Your task to perform on an android device: What's US dollar exchange rateagainst the Mexican Peso? Image 0: 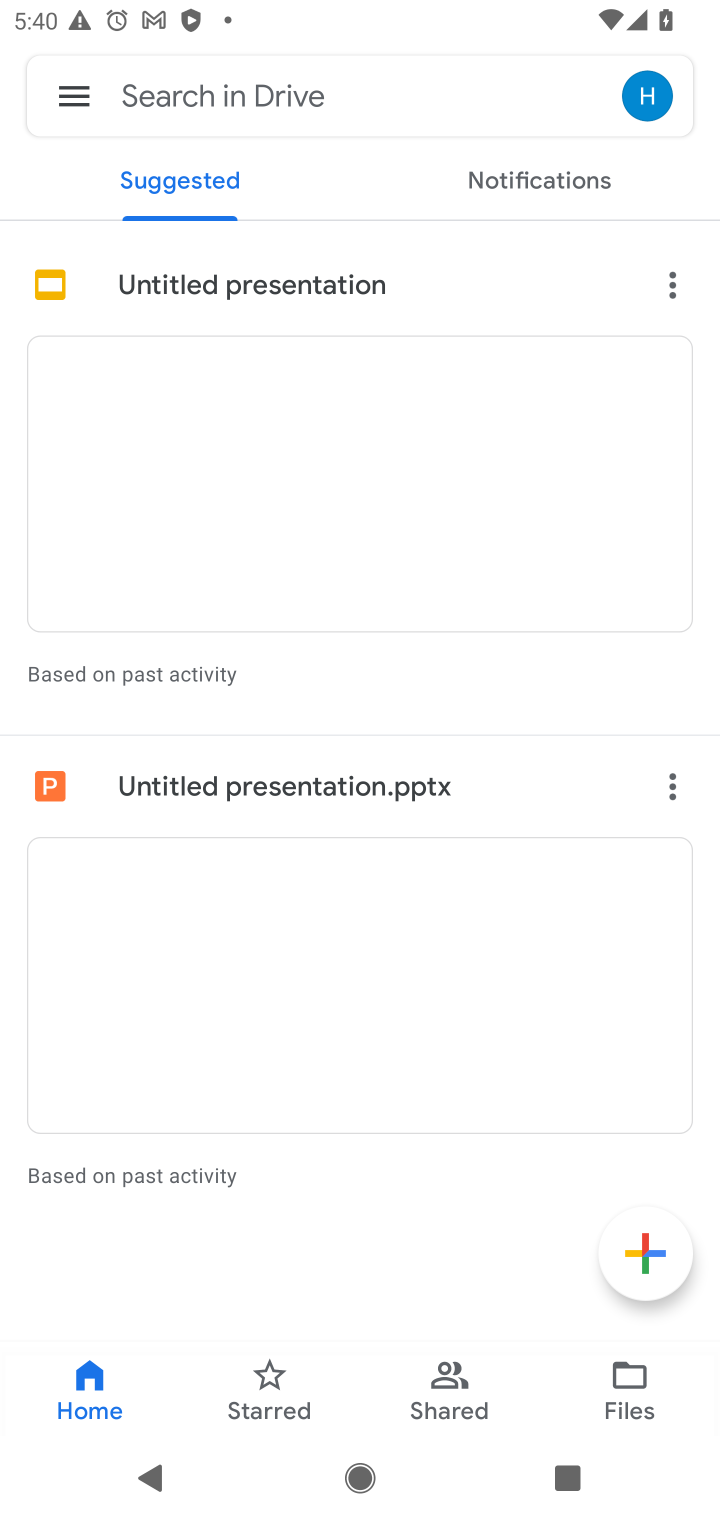
Step 0: press home button
Your task to perform on an android device: What's US dollar exchange rateagainst the Mexican Peso? Image 1: 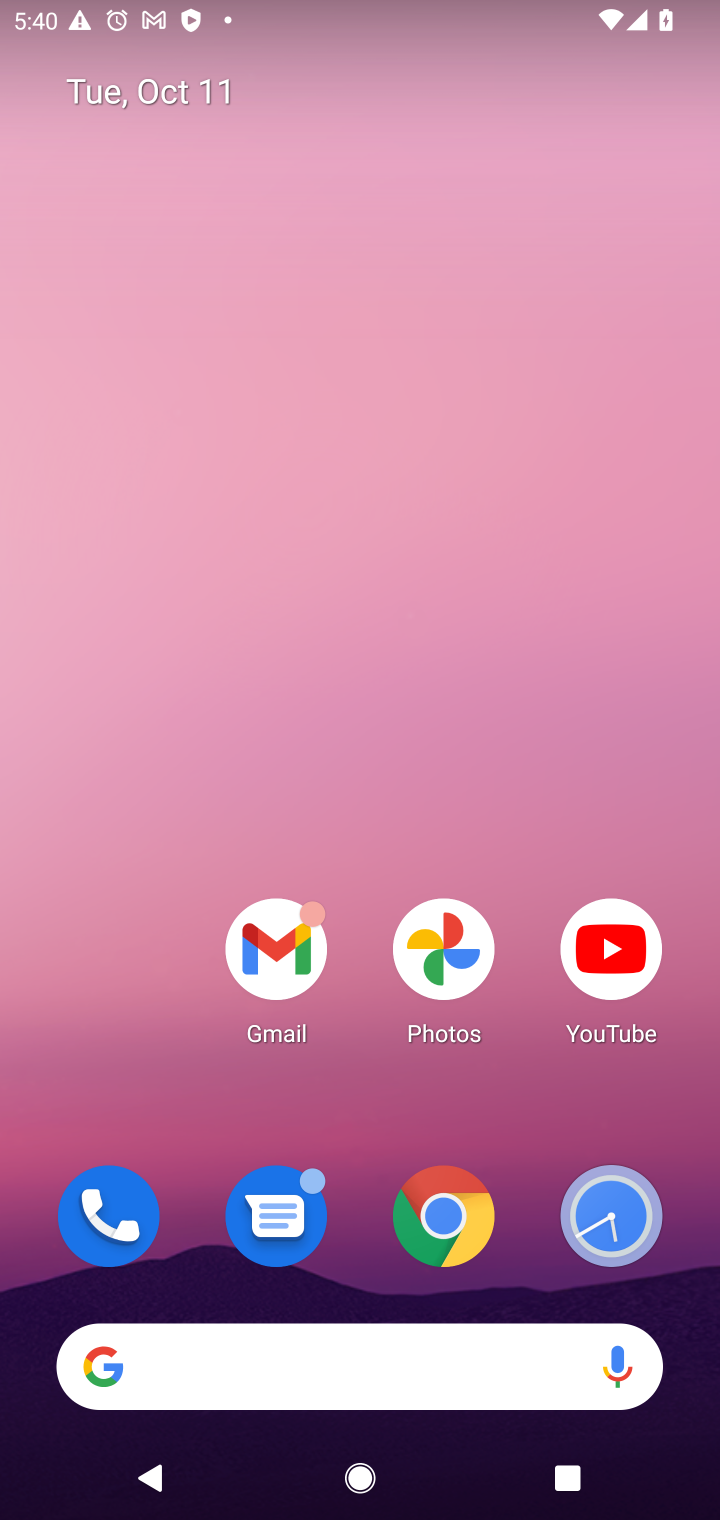
Step 1: click (431, 1265)
Your task to perform on an android device: What's US dollar exchange rateagainst the Mexican Peso? Image 2: 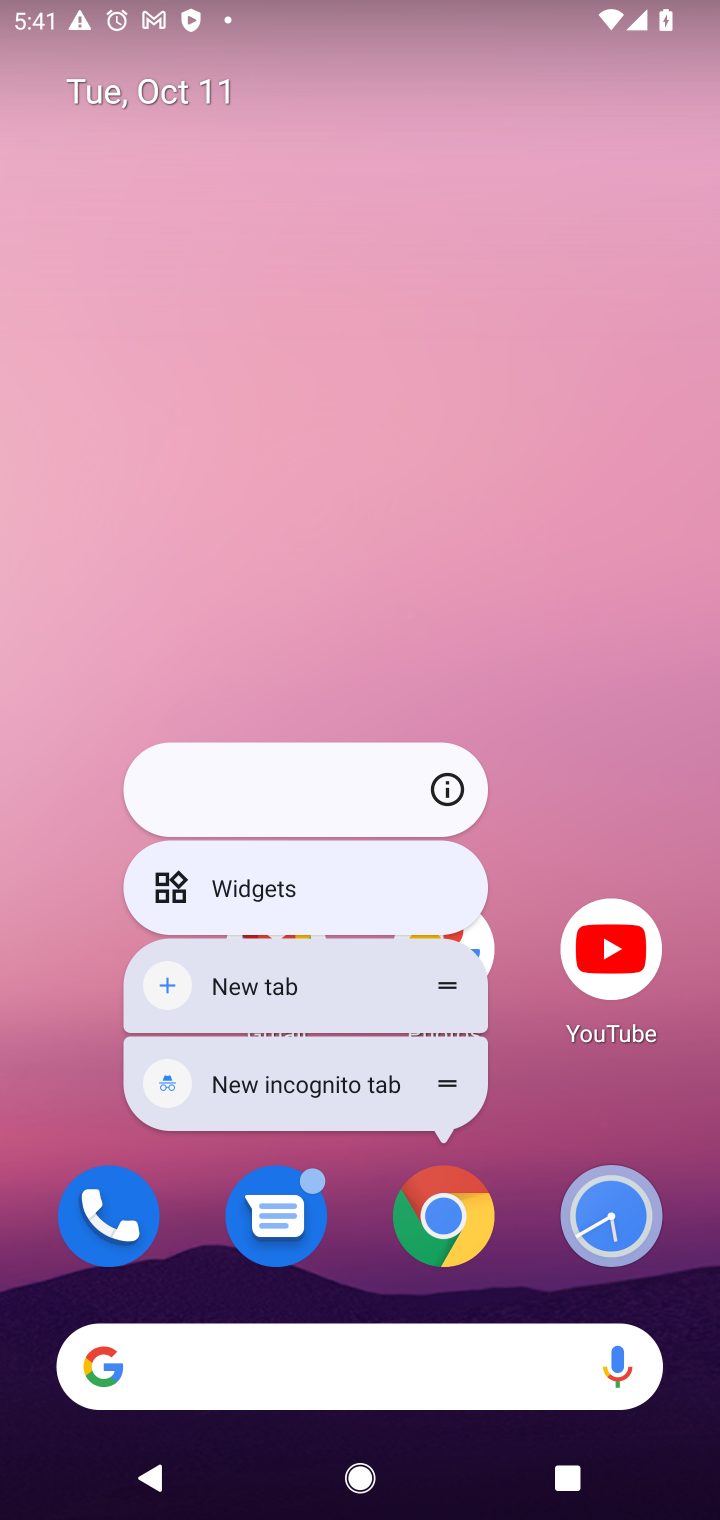
Step 2: click (436, 1243)
Your task to perform on an android device: What's US dollar exchange rateagainst the Mexican Peso? Image 3: 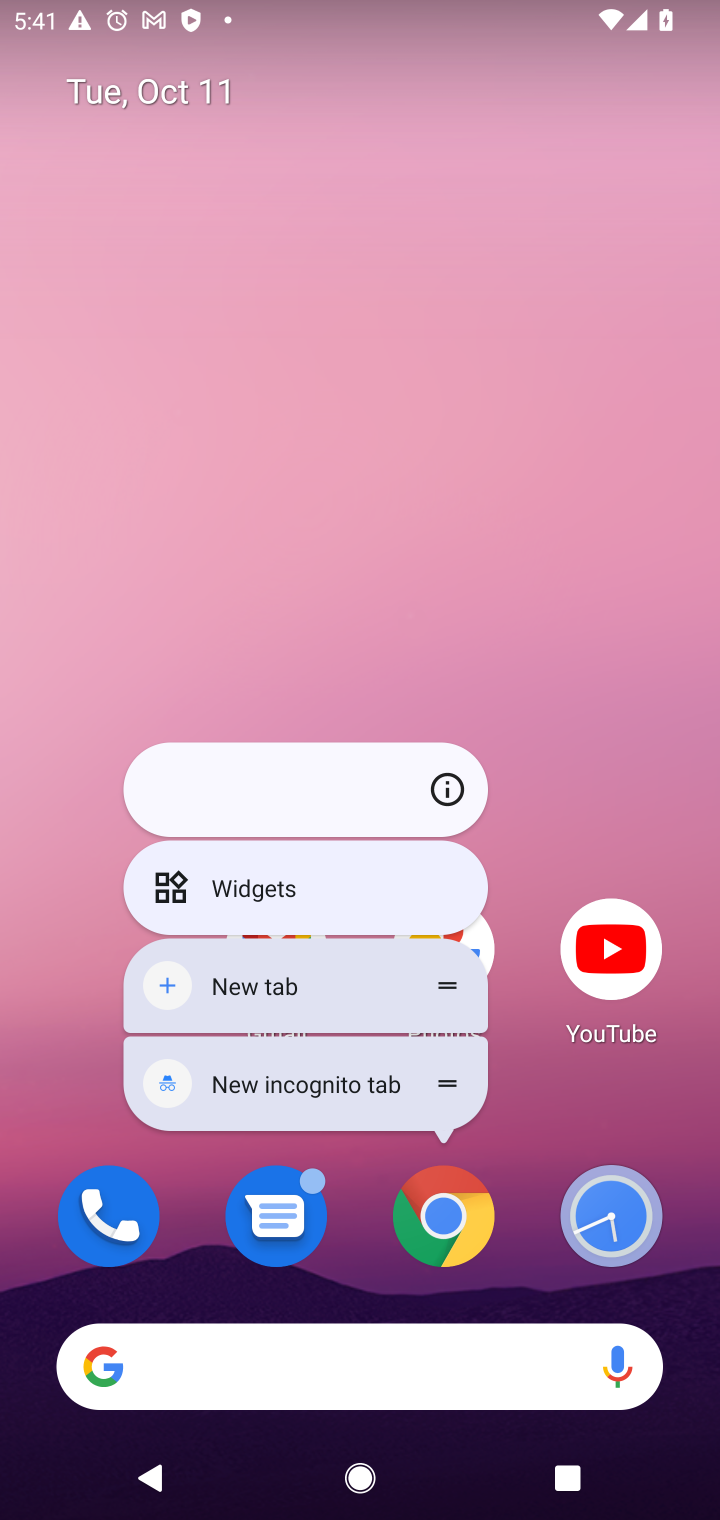
Step 3: click (436, 1243)
Your task to perform on an android device: What's US dollar exchange rateagainst the Mexican Peso? Image 4: 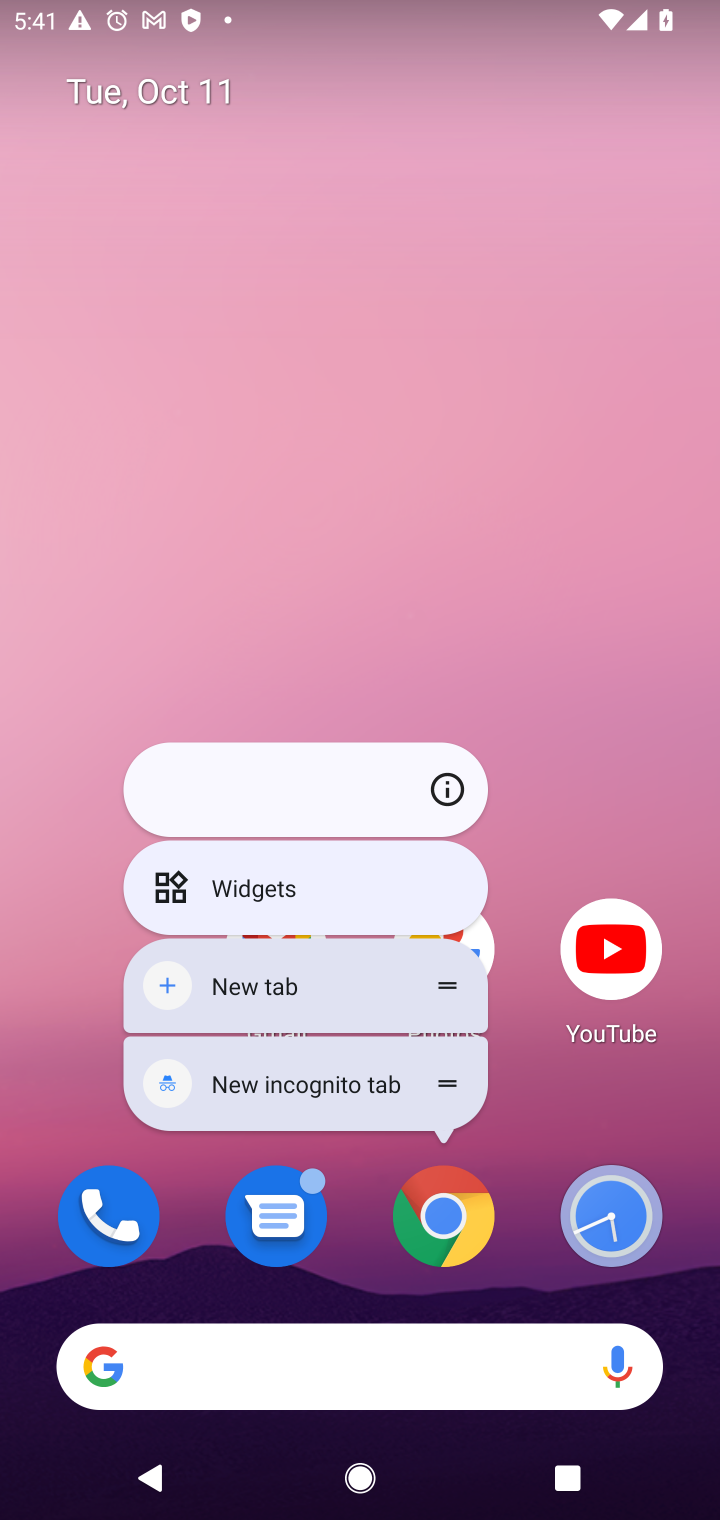
Step 4: click (436, 1243)
Your task to perform on an android device: What's US dollar exchange rateagainst the Mexican Peso? Image 5: 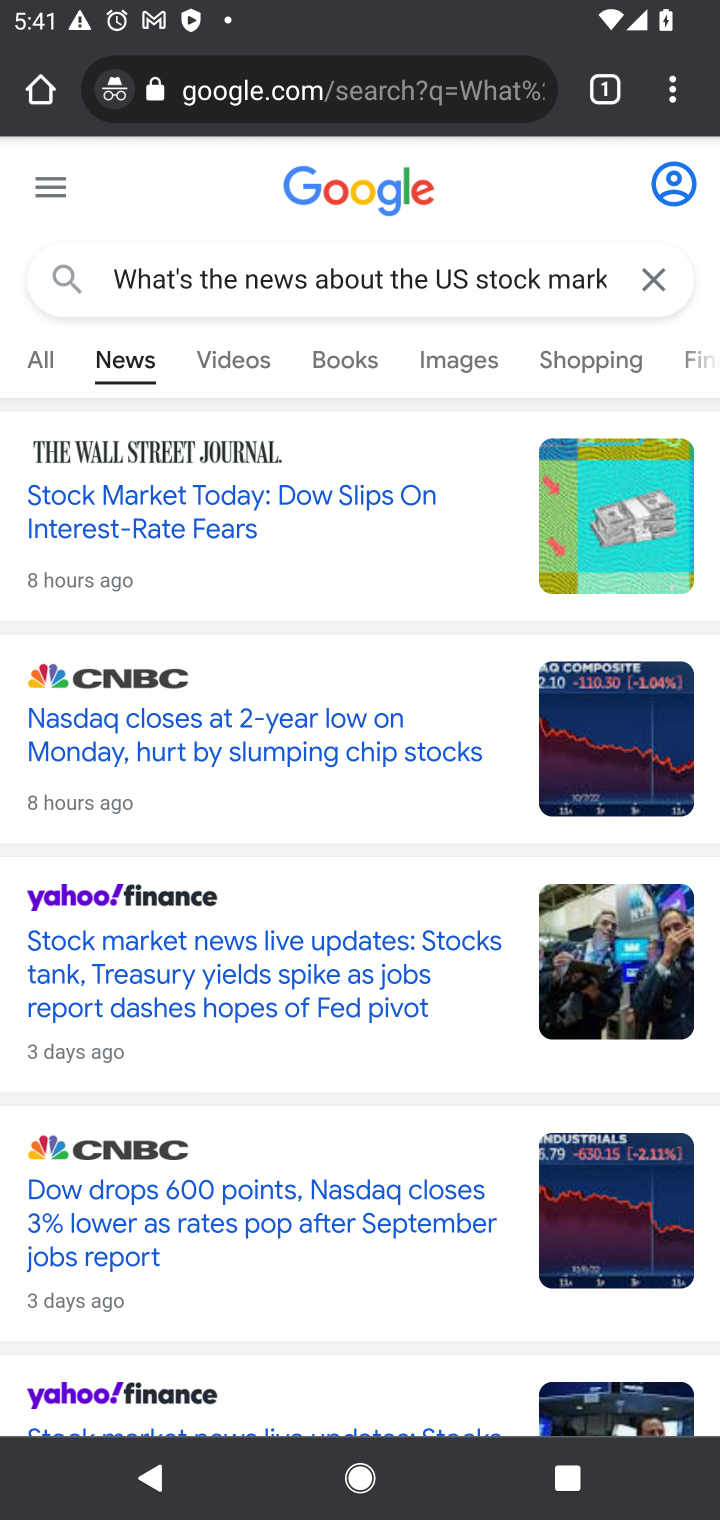
Step 5: click (399, 256)
Your task to perform on an android device: What's US dollar exchange rateagainst the Mexican Peso? Image 6: 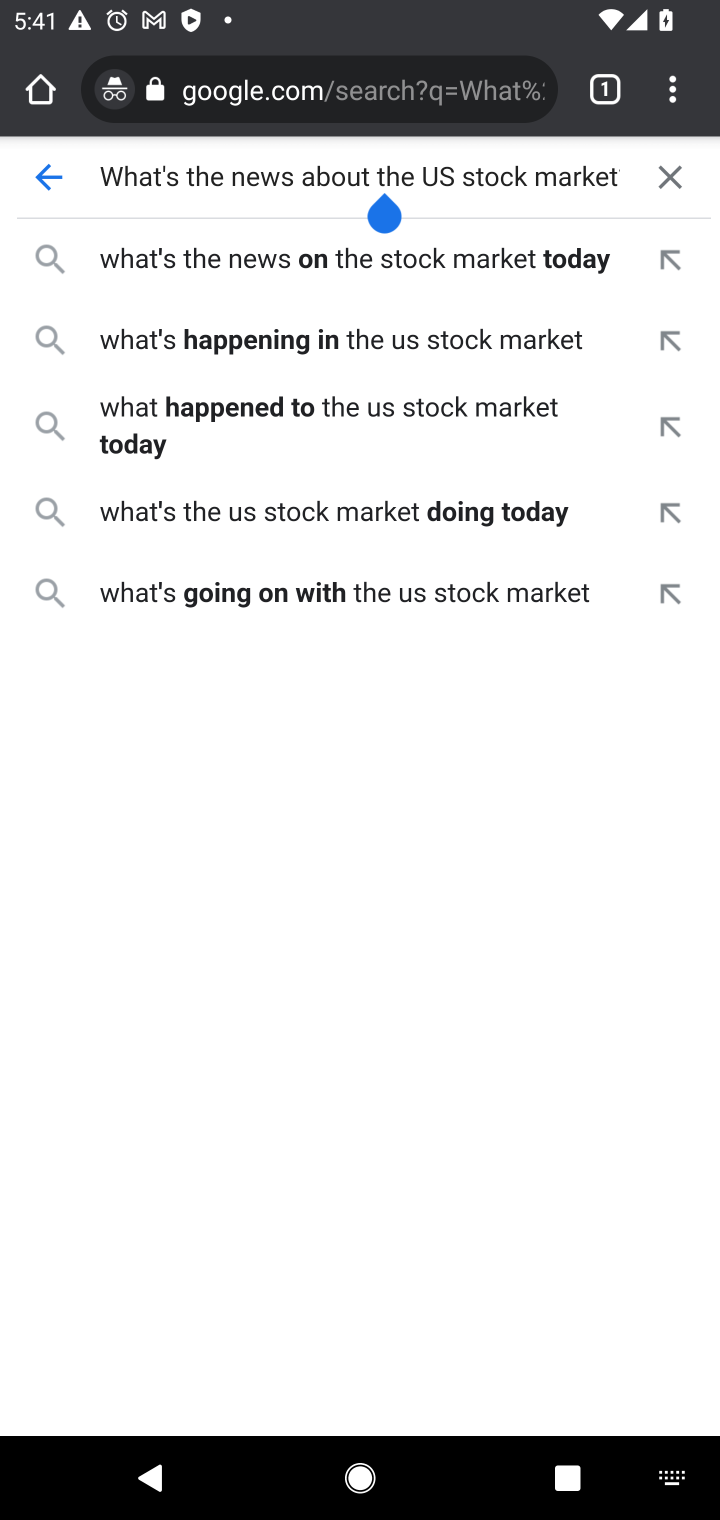
Step 6: click (666, 171)
Your task to perform on an android device: What's US dollar exchange rateagainst the Mexican Peso? Image 7: 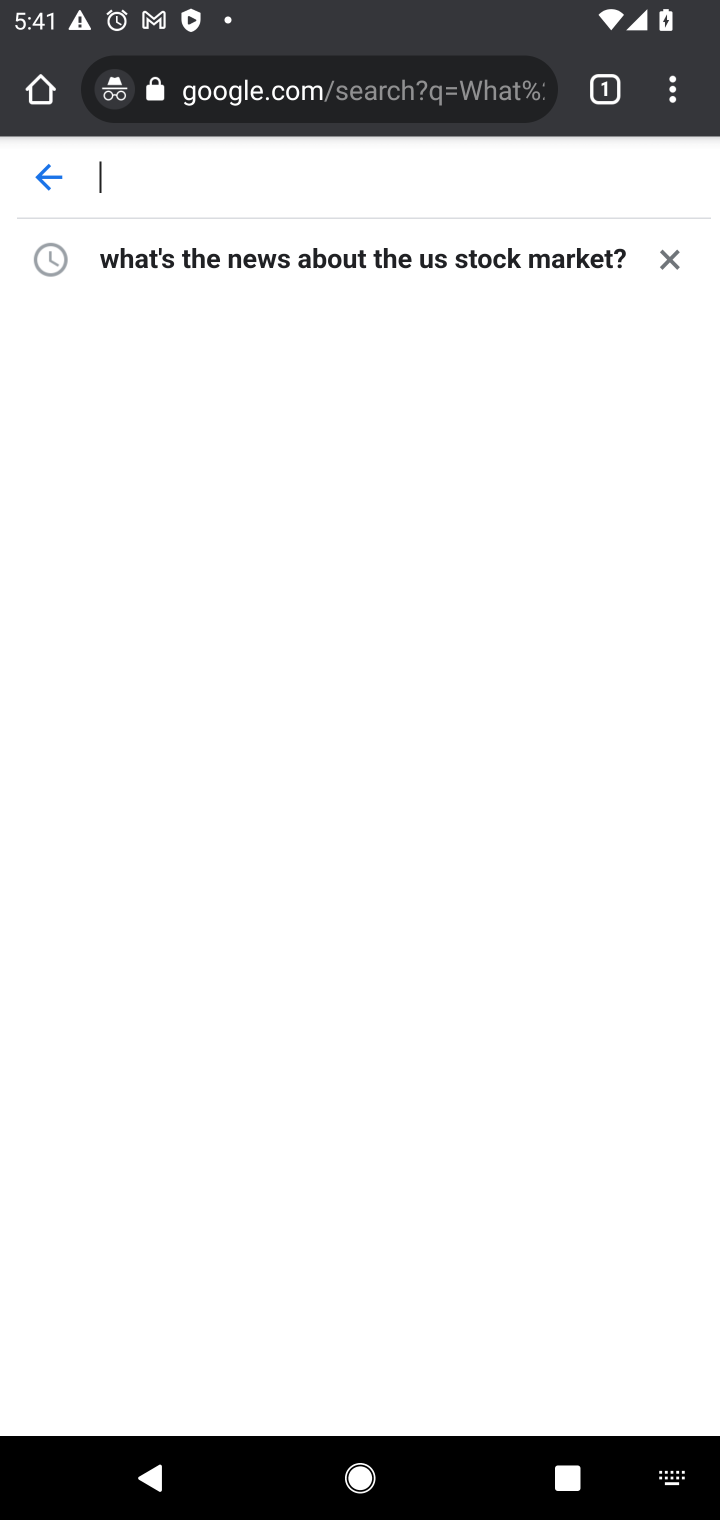
Step 7: type "What's US dollar exchange rateagainst the Mexican Peso?"
Your task to perform on an android device: What's US dollar exchange rateagainst the Mexican Peso? Image 8: 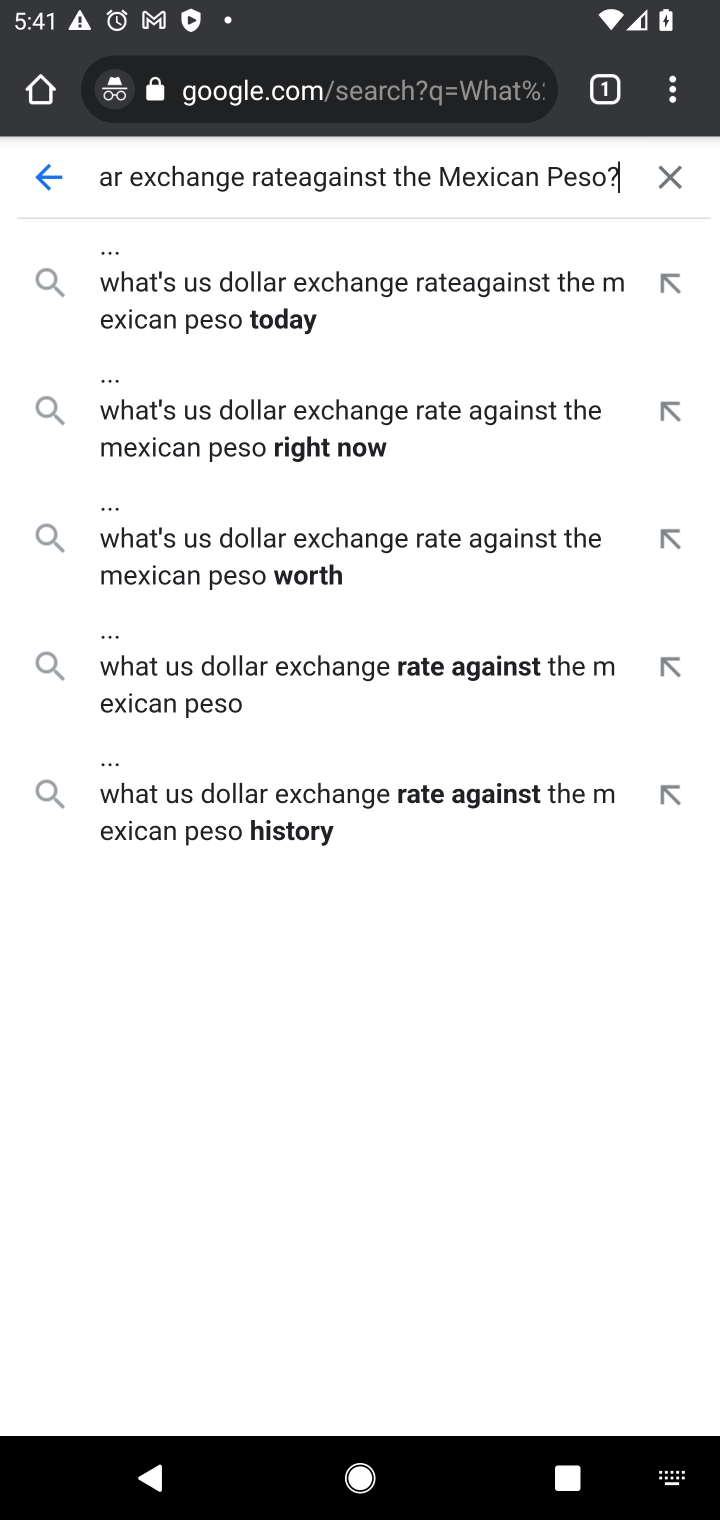
Step 8: press enter
Your task to perform on an android device: What's US dollar exchange rateagainst the Mexican Peso? Image 9: 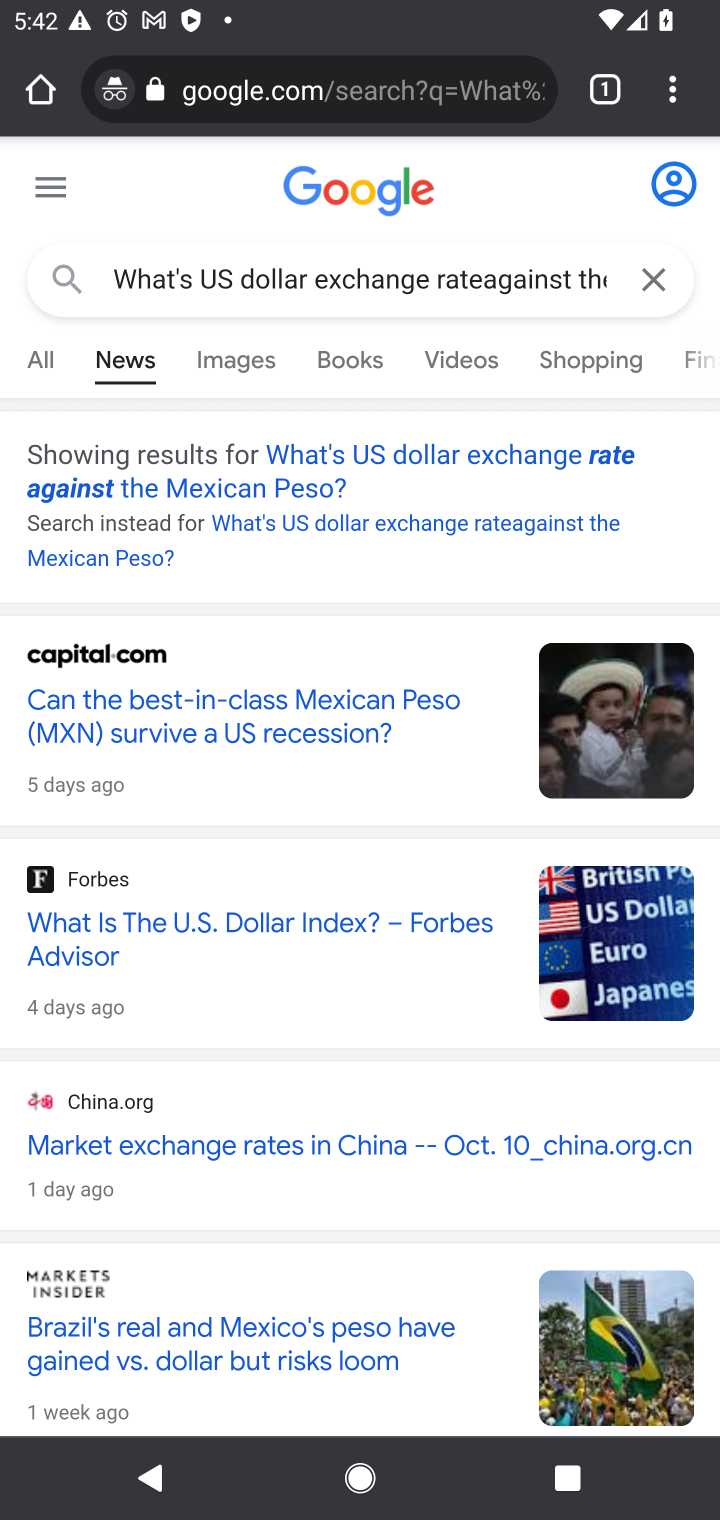
Step 9: click (55, 351)
Your task to perform on an android device: What's US dollar exchange rateagainst the Mexican Peso? Image 10: 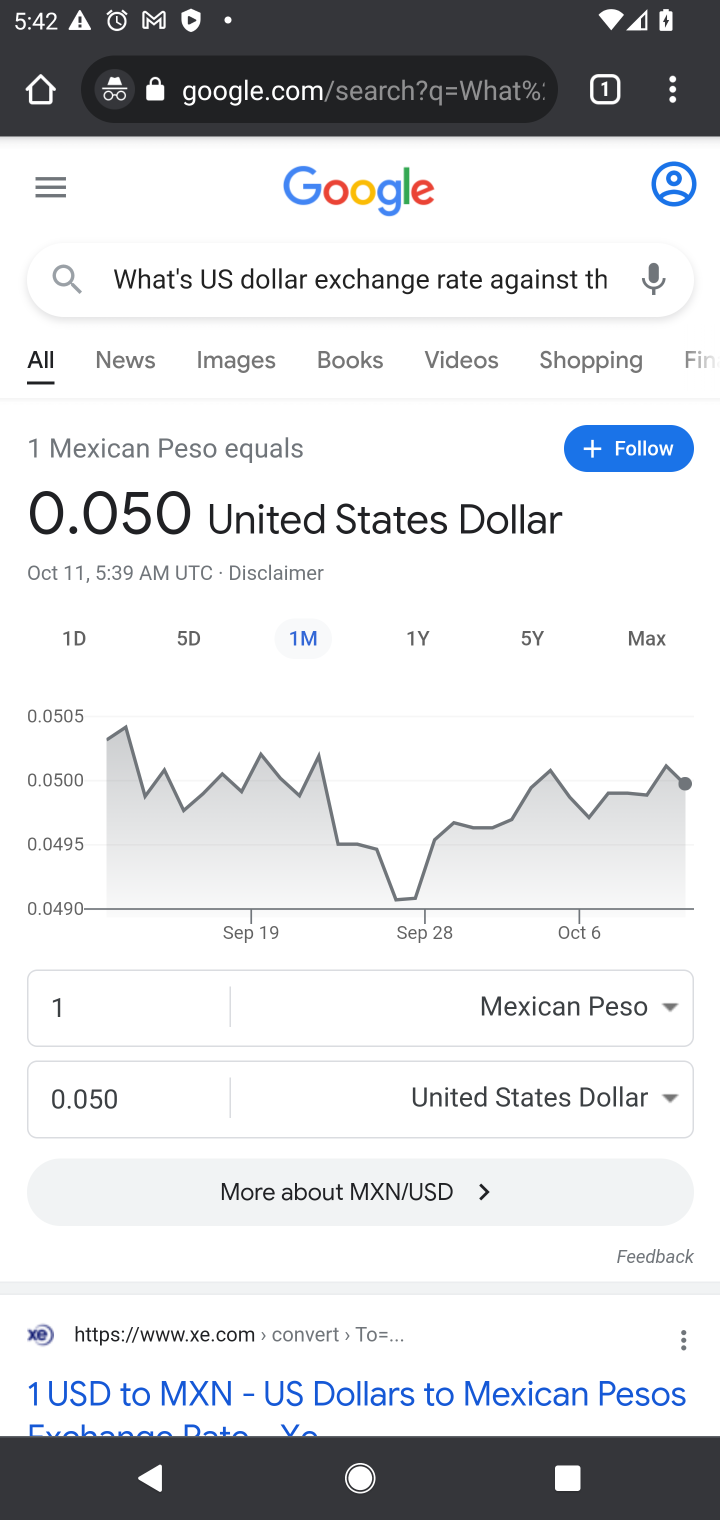
Step 10: task complete